Your task to perform on an android device: What's the weather today? Image 0: 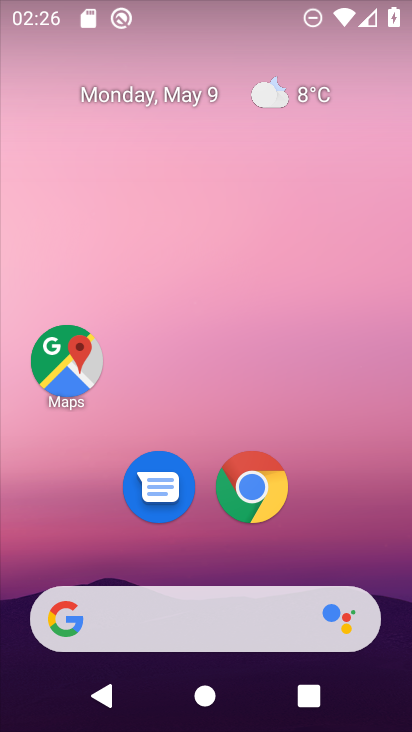
Step 0: drag from (368, 552) to (298, 58)
Your task to perform on an android device: What's the weather today? Image 1: 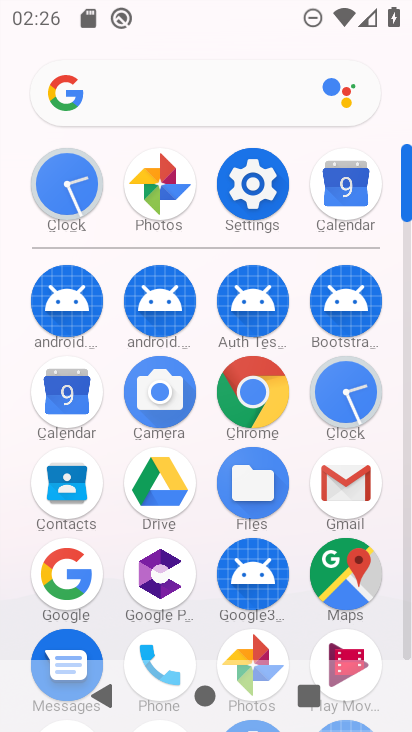
Step 1: drag from (186, 107) to (227, 716)
Your task to perform on an android device: What's the weather today? Image 2: 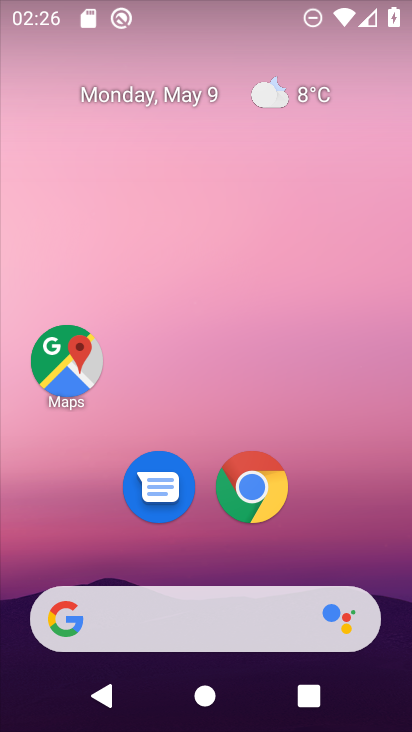
Step 2: click (277, 88)
Your task to perform on an android device: What's the weather today? Image 3: 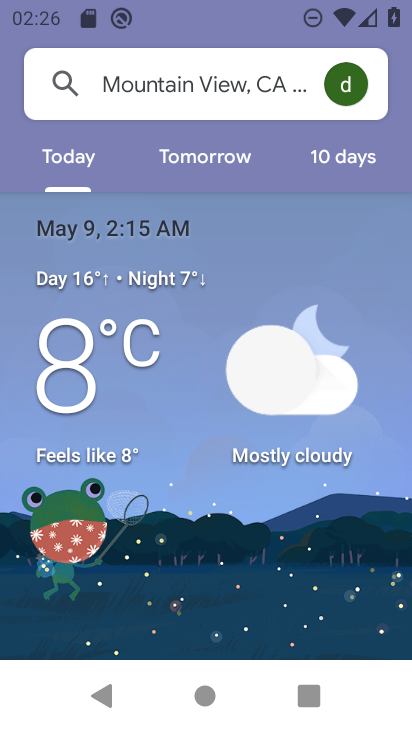
Step 3: task complete